Your task to perform on an android device: change the clock display to digital Image 0: 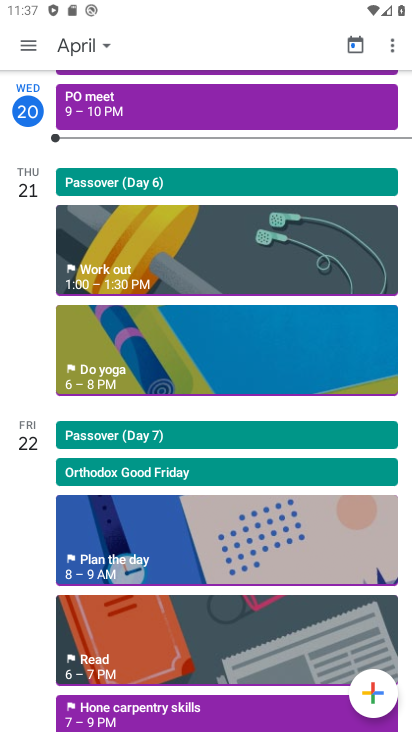
Step 0: press home button
Your task to perform on an android device: change the clock display to digital Image 1: 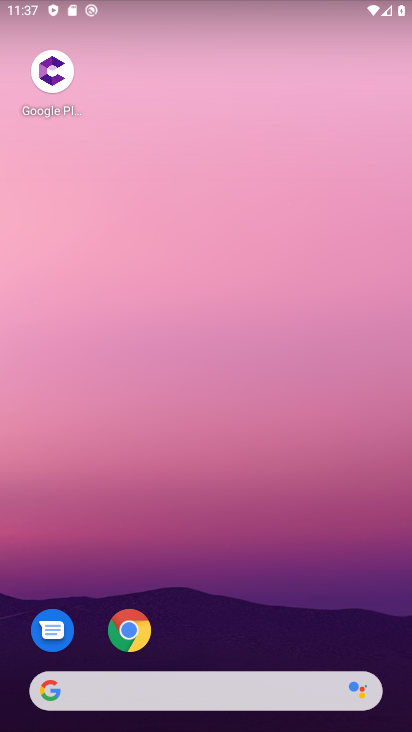
Step 1: drag from (301, 603) to (183, 9)
Your task to perform on an android device: change the clock display to digital Image 2: 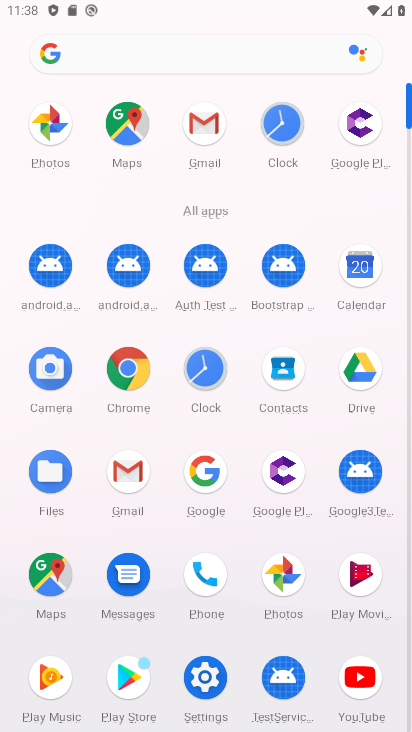
Step 2: click (295, 123)
Your task to perform on an android device: change the clock display to digital Image 3: 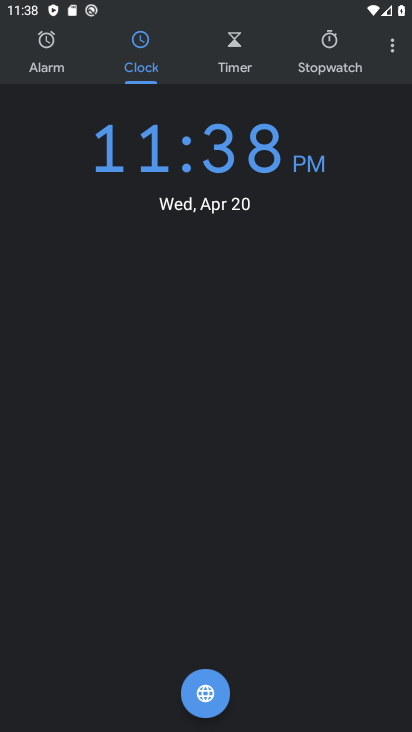
Step 3: click (386, 49)
Your task to perform on an android device: change the clock display to digital Image 4: 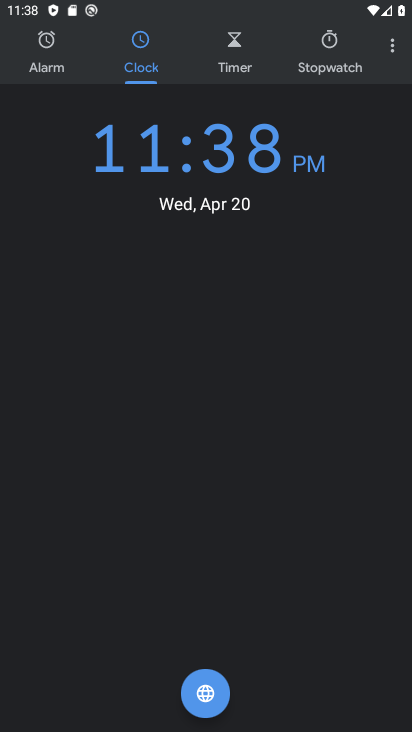
Step 4: click (395, 42)
Your task to perform on an android device: change the clock display to digital Image 5: 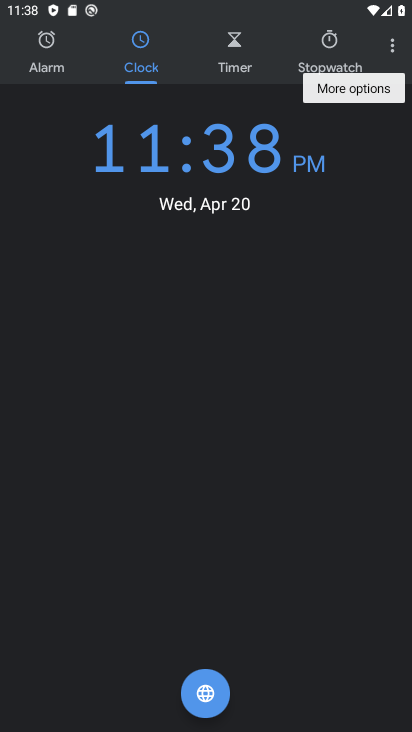
Step 5: click (396, 42)
Your task to perform on an android device: change the clock display to digital Image 6: 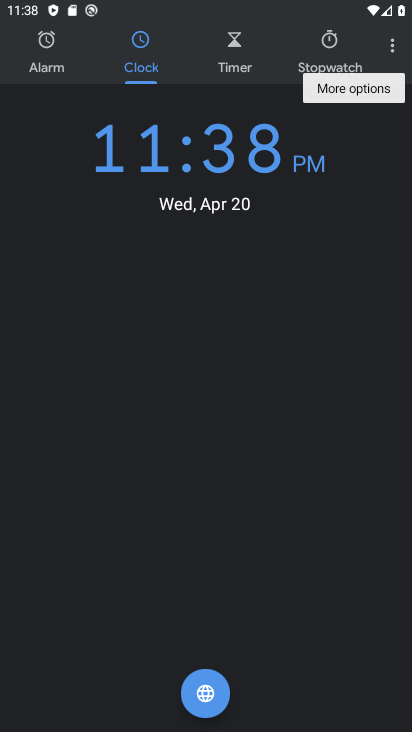
Step 6: click (392, 47)
Your task to perform on an android device: change the clock display to digital Image 7: 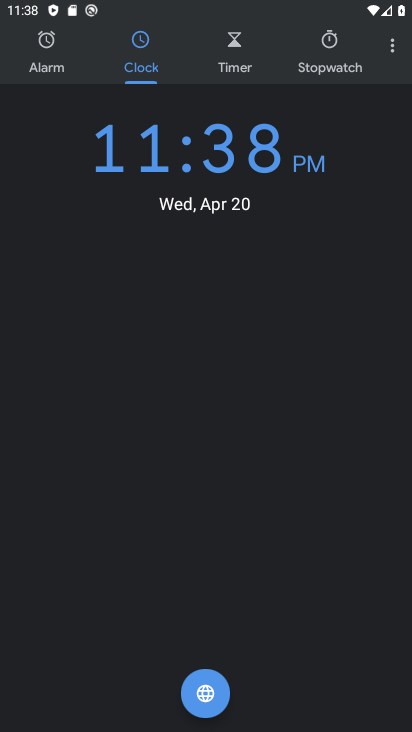
Step 7: click (386, 48)
Your task to perform on an android device: change the clock display to digital Image 8: 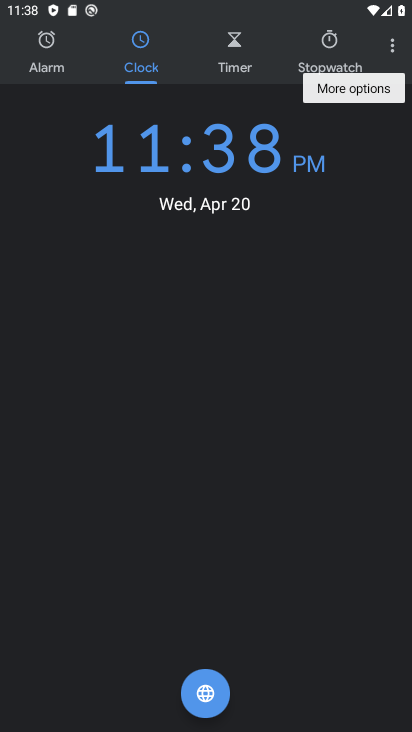
Step 8: click (395, 41)
Your task to perform on an android device: change the clock display to digital Image 9: 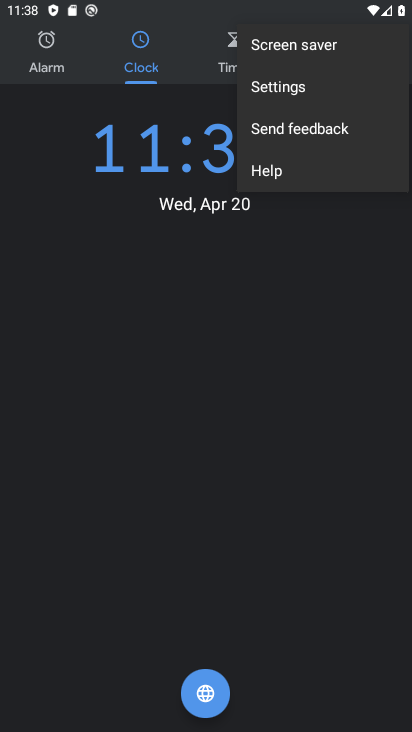
Step 9: click (301, 86)
Your task to perform on an android device: change the clock display to digital Image 10: 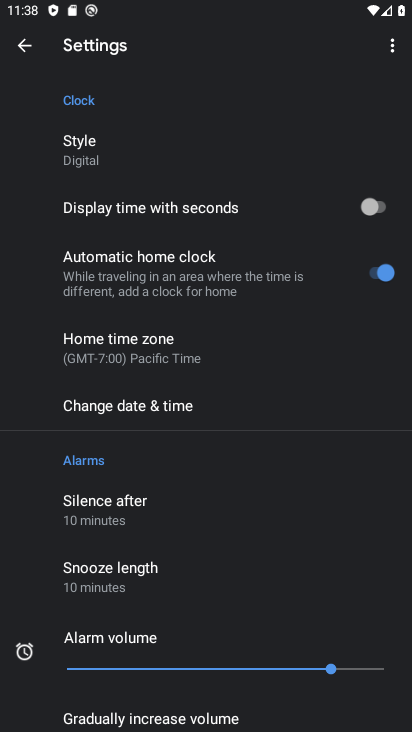
Step 10: click (96, 151)
Your task to perform on an android device: change the clock display to digital Image 11: 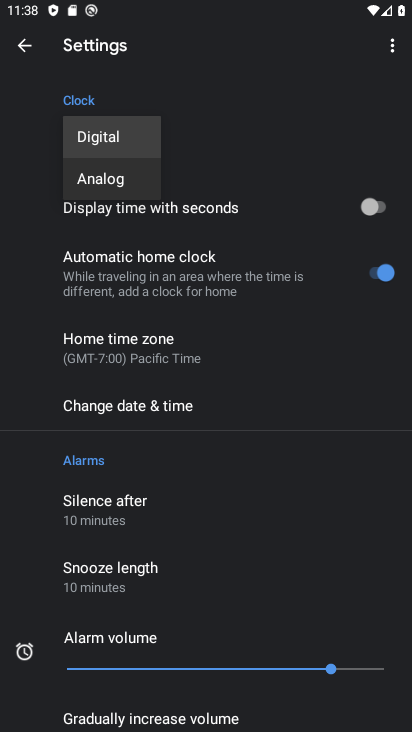
Step 11: click (127, 190)
Your task to perform on an android device: change the clock display to digital Image 12: 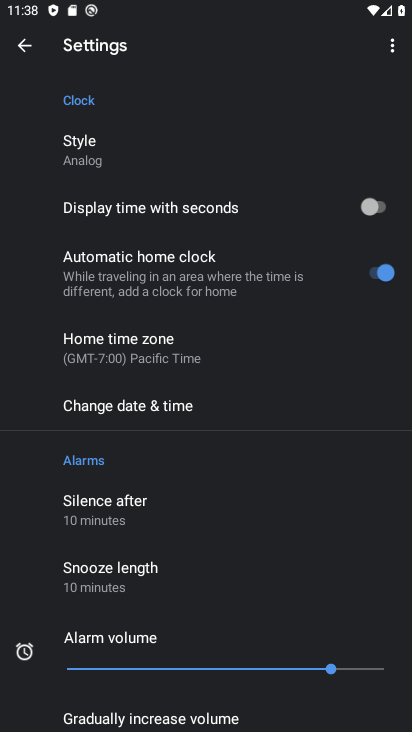
Step 12: task complete